Your task to perform on an android device: see sites visited before in the chrome app Image 0: 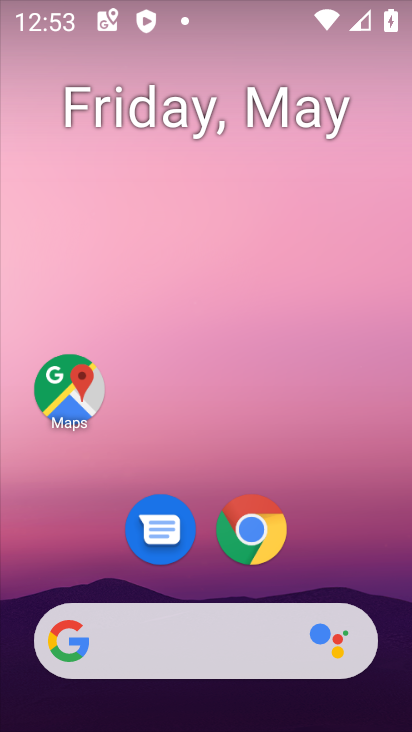
Step 0: click (263, 544)
Your task to perform on an android device: see sites visited before in the chrome app Image 1: 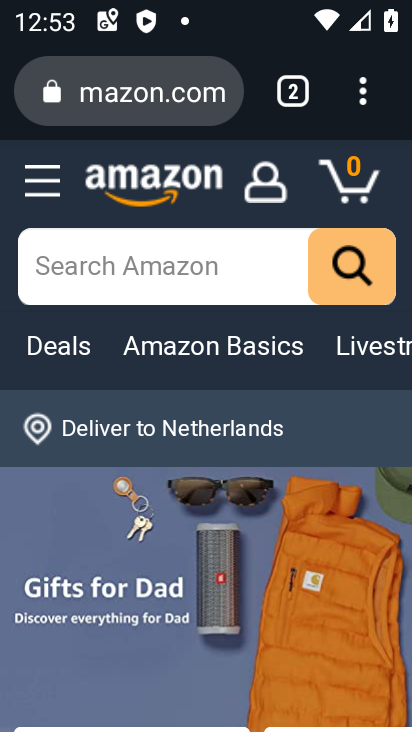
Step 1: click (353, 85)
Your task to perform on an android device: see sites visited before in the chrome app Image 2: 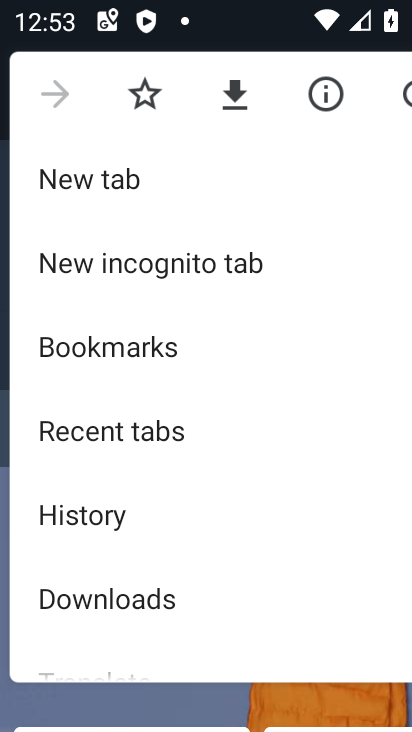
Step 2: click (172, 432)
Your task to perform on an android device: see sites visited before in the chrome app Image 3: 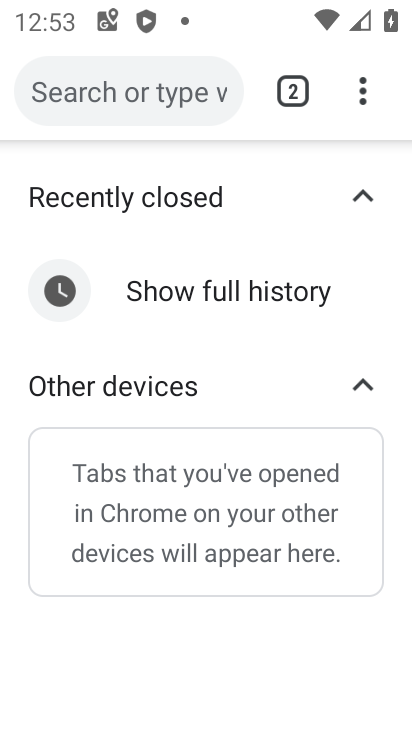
Step 3: task complete